Your task to perform on an android device: check out phone information Image 0: 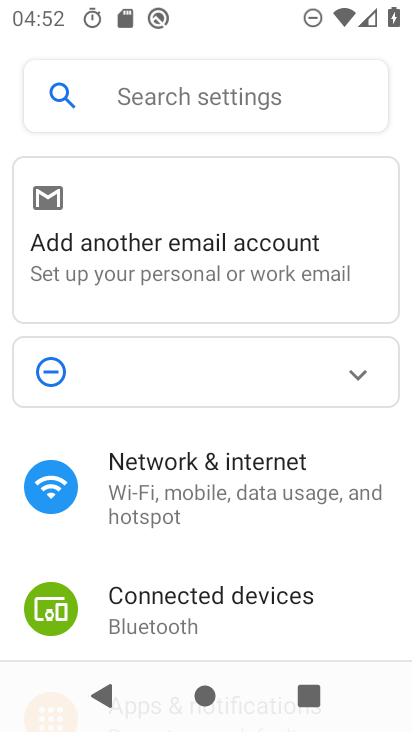
Step 0: drag from (212, 574) to (321, 76)
Your task to perform on an android device: check out phone information Image 1: 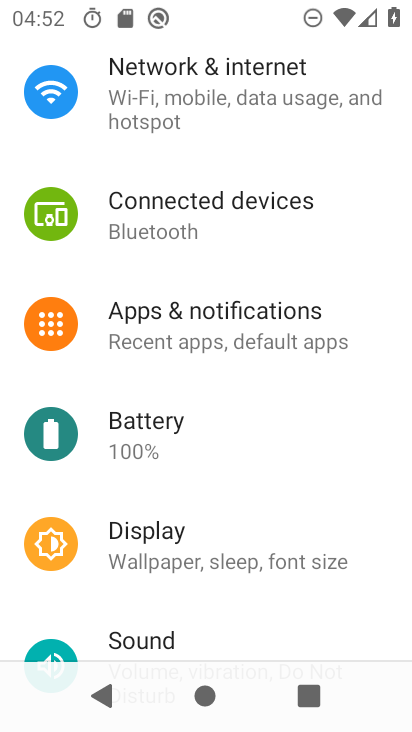
Step 1: drag from (222, 523) to (300, 41)
Your task to perform on an android device: check out phone information Image 2: 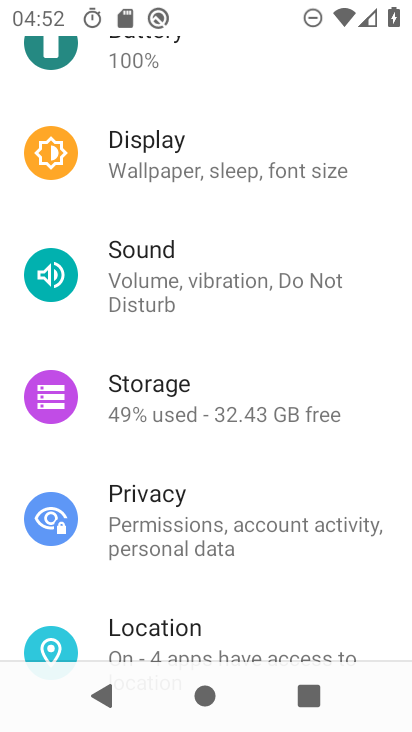
Step 2: drag from (196, 579) to (329, 44)
Your task to perform on an android device: check out phone information Image 3: 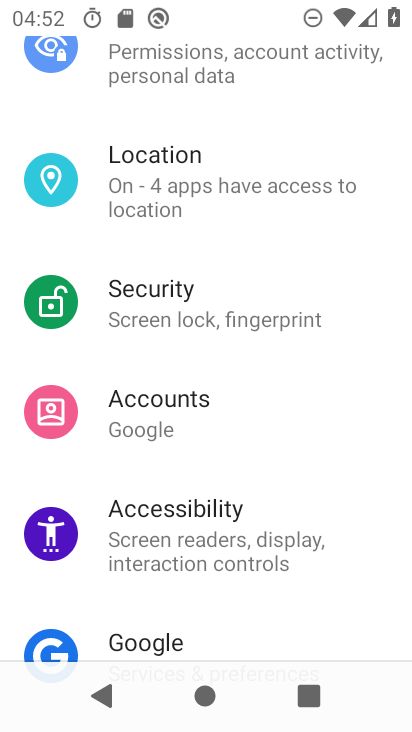
Step 3: drag from (230, 537) to (329, 11)
Your task to perform on an android device: check out phone information Image 4: 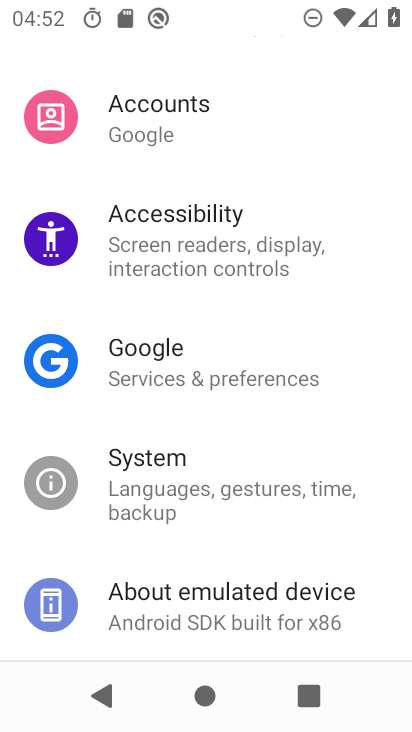
Step 4: click (180, 591)
Your task to perform on an android device: check out phone information Image 5: 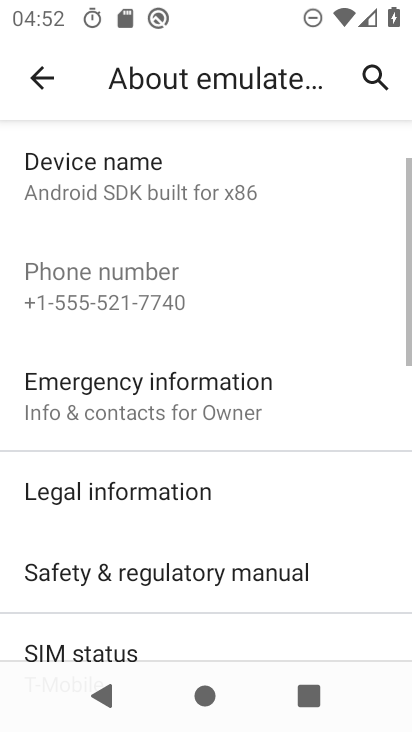
Step 5: task complete